Your task to perform on an android device: Open Chrome and go to settings Image 0: 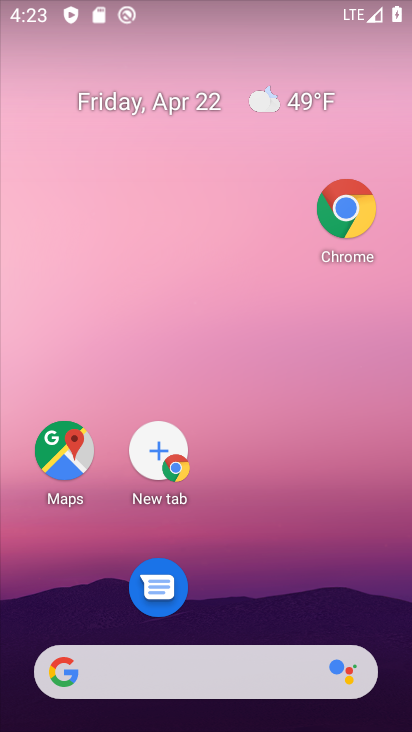
Step 0: click (345, 216)
Your task to perform on an android device: Open Chrome and go to settings Image 1: 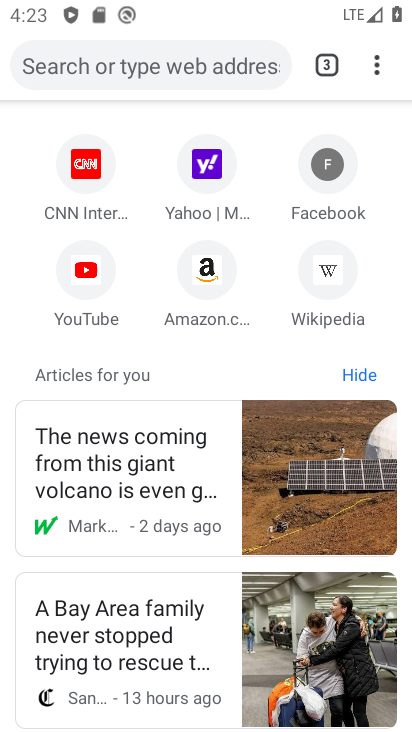
Step 1: click (381, 58)
Your task to perform on an android device: Open Chrome and go to settings Image 2: 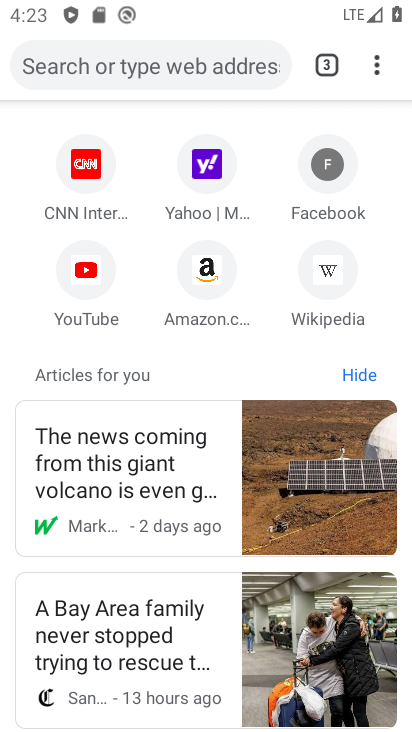
Step 2: click (373, 75)
Your task to perform on an android device: Open Chrome and go to settings Image 3: 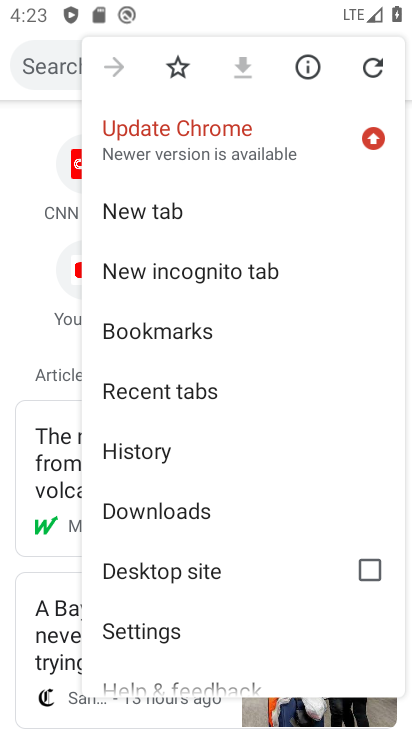
Step 3: click (143, 624)
Your task to perform on an android device: Open Chrome and go to settings Image 4: 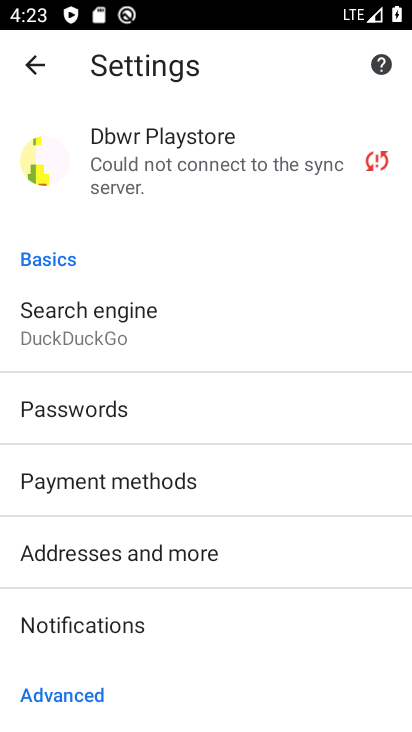
Step 4: task complete